Your task to perform on an android device: Check the news Image 0: 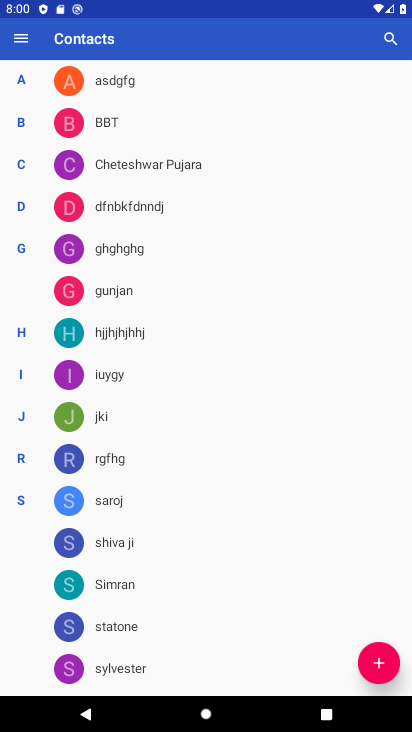
Step 0: press home button
Your task to perform on an android device: Check the news Image 1: 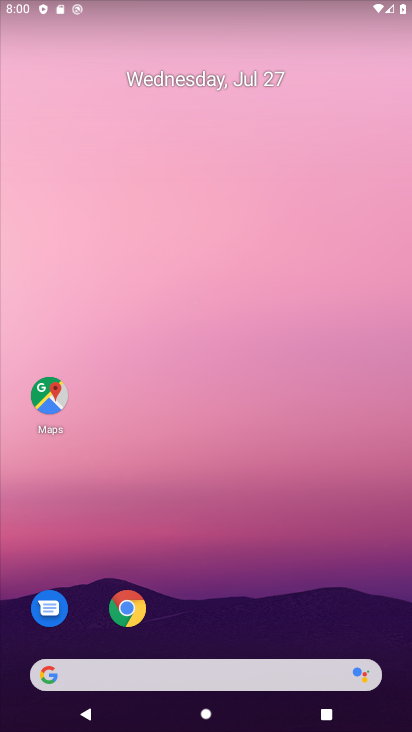
Step 1: click (207, 676)
Your task to perform on an android device: Check the news Image 2: 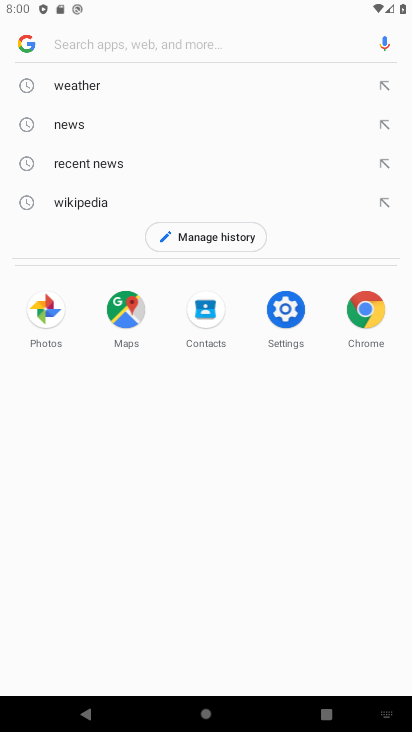
Step 2: type "Check the news"
Your task to perform on an android device: Check the news Image 3: 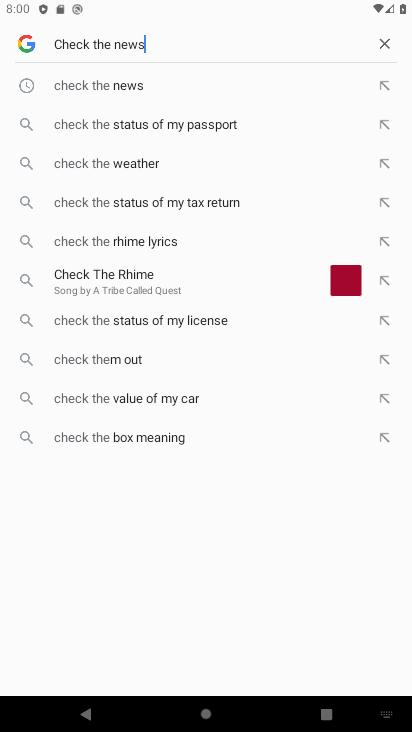
Step 3: press enter
Your task to perform on an android device: Check the news Image 4: 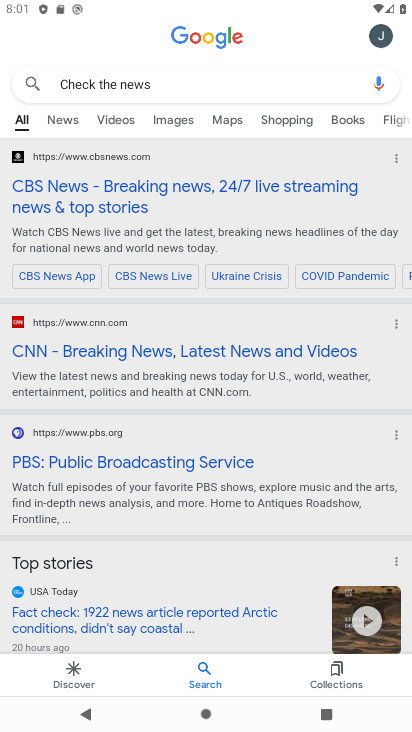
Step 4: task complete